Your task to perform on an android device: allow cookies in the chrome app Image 0: 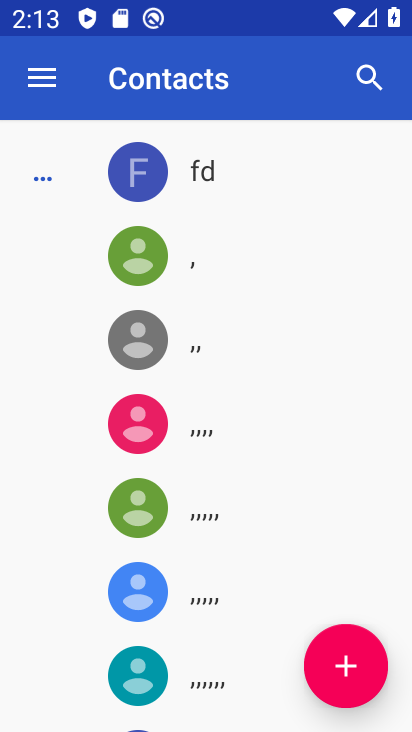
Step 0: press home button
Your task to perform on an android device: allow cookies in the chrome app Image 1: 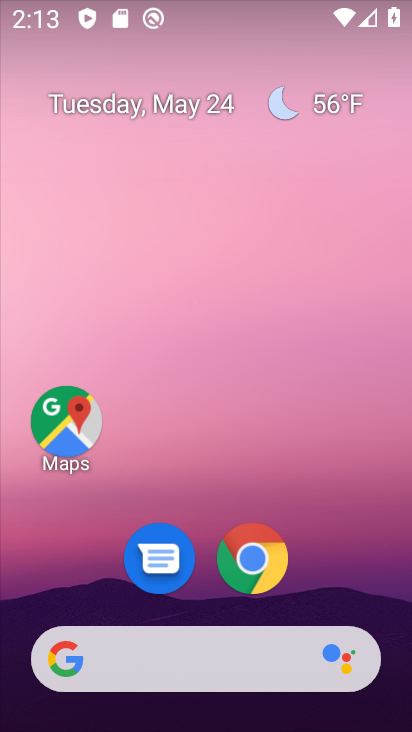
Step 1: click (258, 566)
Your task to perform on an android device: allow cookies in the chrome app Image 2: 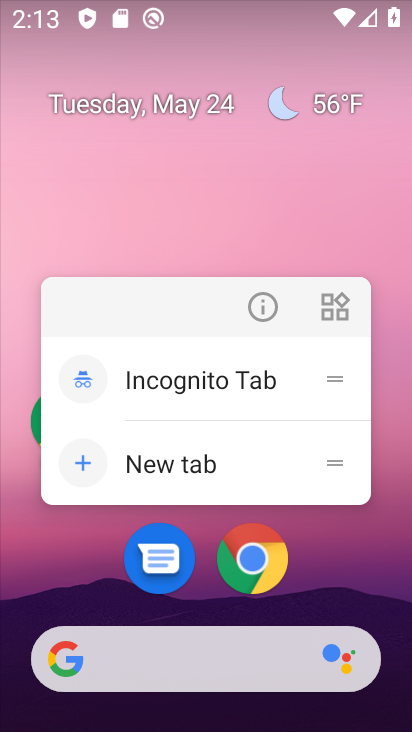
Step 2: click (258, 566)
Your task to perform on an android device: allow cookies in the chrome app Image 3: 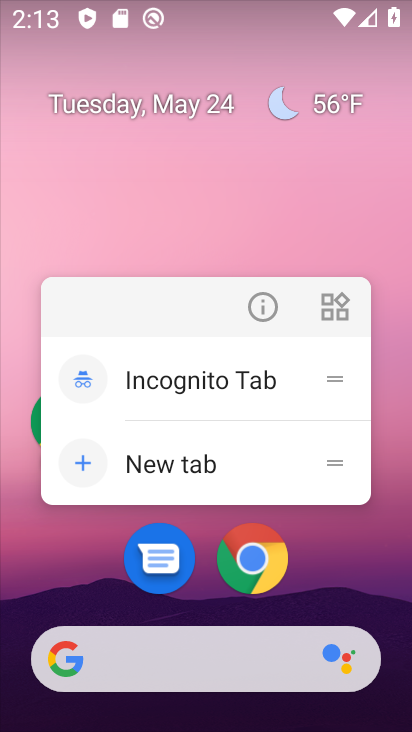
Step 3: click (266, 575)
Your task to perform on an android device: allow cookies in the chrome app Image 4: 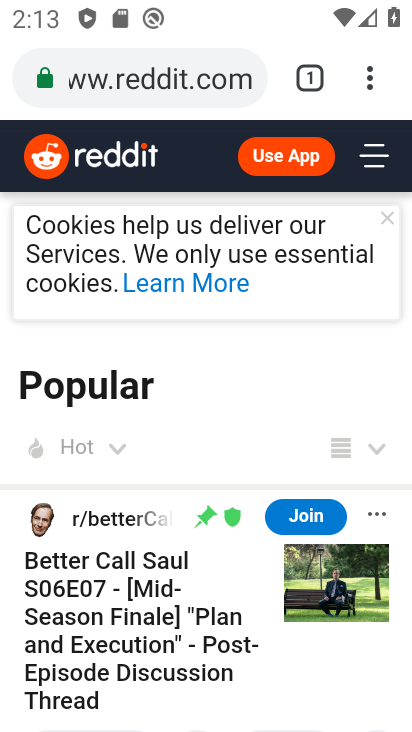
Step 4: drag from (381, 78) to (285, 627)
Your task to perform on an android device: allow cookies in the chrome app Image 5: 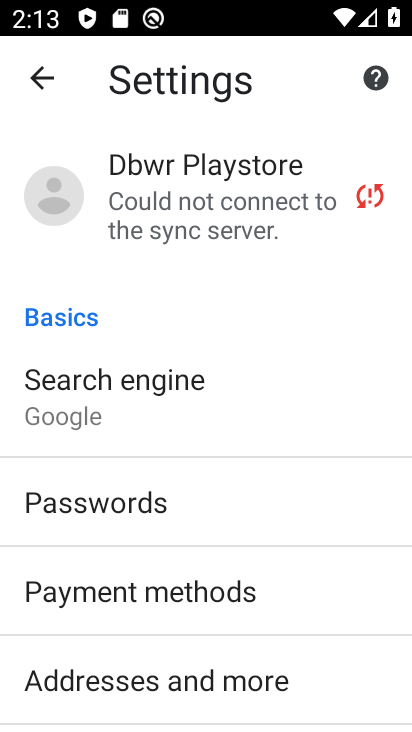
Step 5: drag from (225, 633) to (340, 214)
Your task to perform on an android device: allow cookies in the chrome app Image 6: 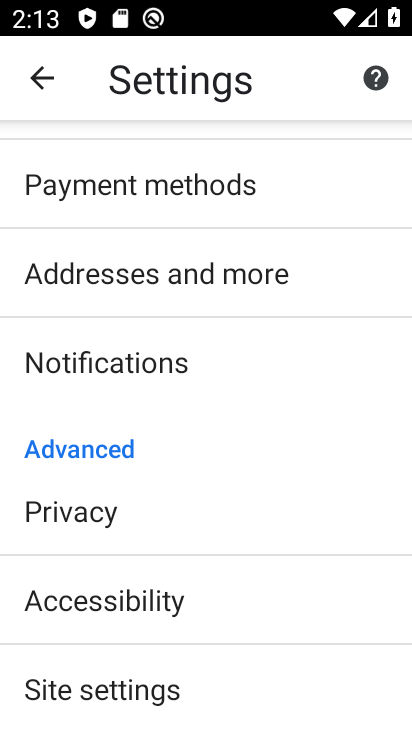
Step 6: drag from (196, 604) to (241, 445)
Your task to perform on an android device: allow cookies in the chrome app Image 7: 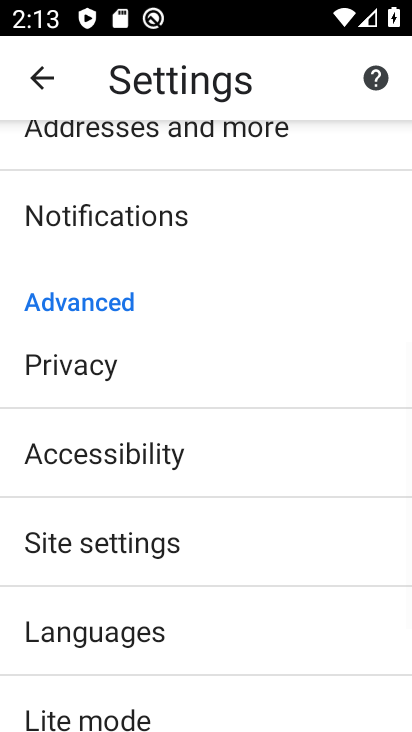
Step 7: click (192, 562)
Your task to perform on an android device: allow cookies in the chrome app Image 8: 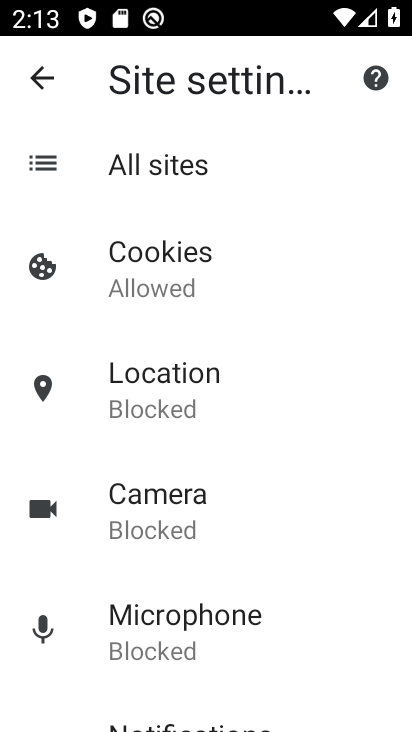
Step 8: click (189, 258)
Your task to perform on an android device: allow cookies in the chrome app Image 9: 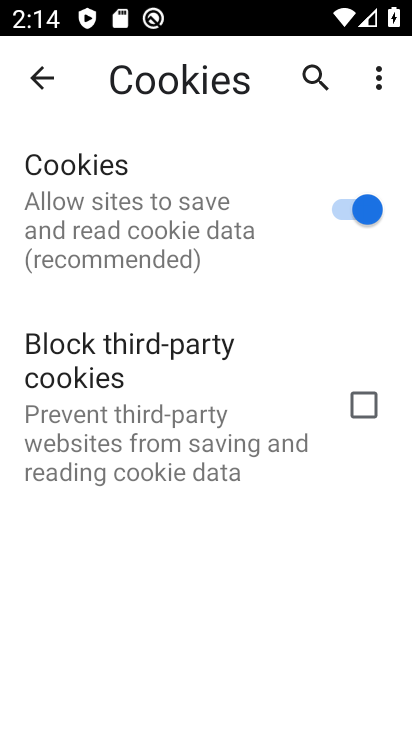
Step 9: task complete